Your task to perform on an android device: Search for "bose quietcomfort 35" on bestbuy.com, select the first entry, add it to the cart, then select checkout. Image 0: 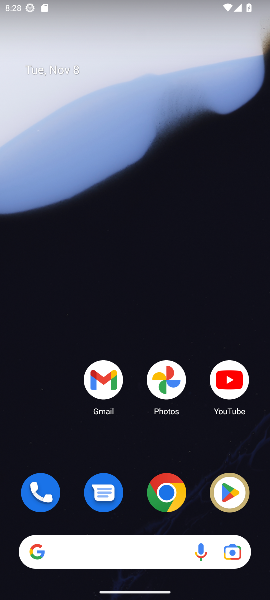
Step 0: click (163, 503)
Your task to perform on an android device: Search for "bose quietcomfort 35" on bestbuy.com, select the first entry, add it to the cart, then select checkout. Image 1: 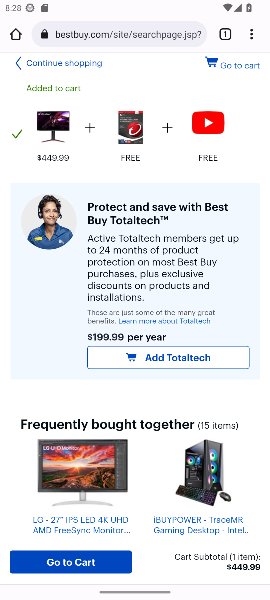
Step 1: click (163, 503)
Your task to perform on an android device: Search for "bose quietcomfort 35" on bestbuy.com, select the first entry, add it to the cart, then select checkout. Image 2: 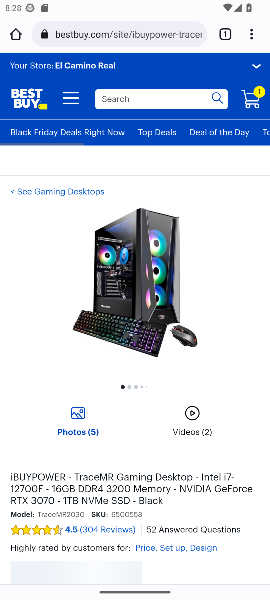
Step 2: click (163, 503)
Your task to perform on an android device: Search for "bose quietcomfort 35" on bestbuy.com, select the first entry, add it to the cart, then select checkout. Image 3: 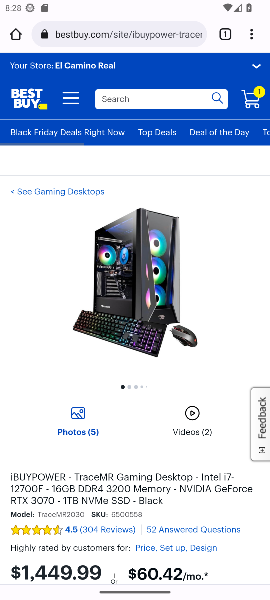
Step 3: click (111, 99)
Your task to perform on an android device: Search for "bose quietcomfort 35" on bestbuy.com, select the first entry, add it to the cart, then select checkout. Image 4: 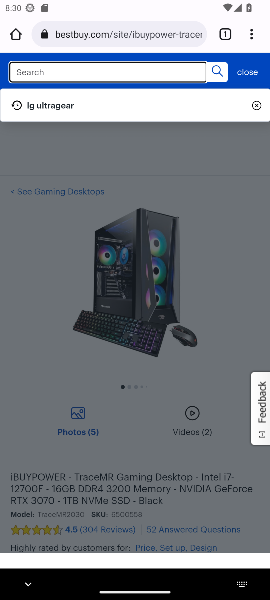
Step 4: type "lg ultragear"
Your task to perform on an android device: Search for "bose quietcomfort 35" on bestbuy.com, select the first entry, add it to the cart, then select checkout. Image 5: 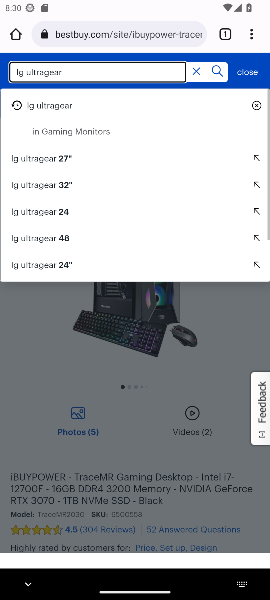
Step 5: type "bose quietcomfort 35"
Your task to perform on an android device: Search for "bose quietcomfort 35" on bestbuy.com, select the first entry, add it to the cart, then select checkout. Image 6: 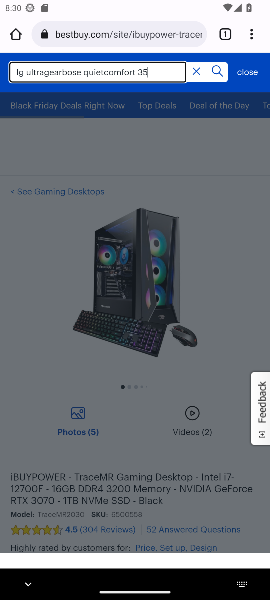
Step 6: click (195, 69)
Your task to perform on an android device: Search for "bose quietcomfort 35" on bestbuy.com, select the first entry, add it to the cart, then select checkout. Image 7: 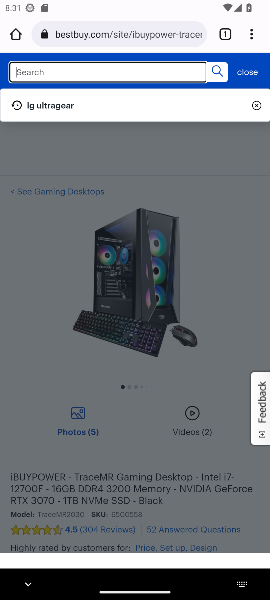
Step 7: type "bose quietcomfort 35"
Your task to perform on an android device: Search for "bose quietcomfort 35" on bestbuy.com, select the first entry, add it to the cart, then select checkout. Image 8: 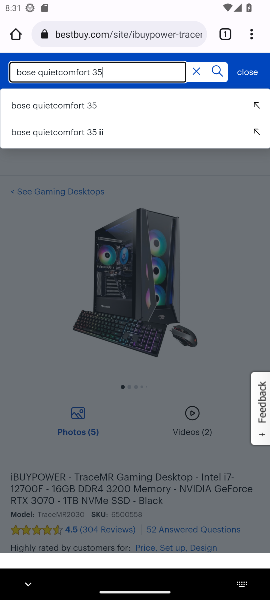
Step 8: click (222, 68)
Your task to perform on an android device: Search for "bose quietcomfort 35" on bestbuy.com, select the first entry, add it to the cart, then select checkout. Image 9: 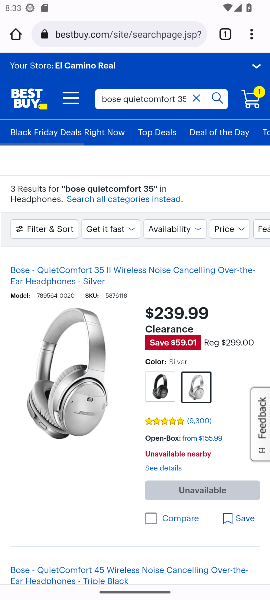
Step 9: task complete